Your task to perform on an android device: open the mobile data screen to see how much data has been used Image 0: 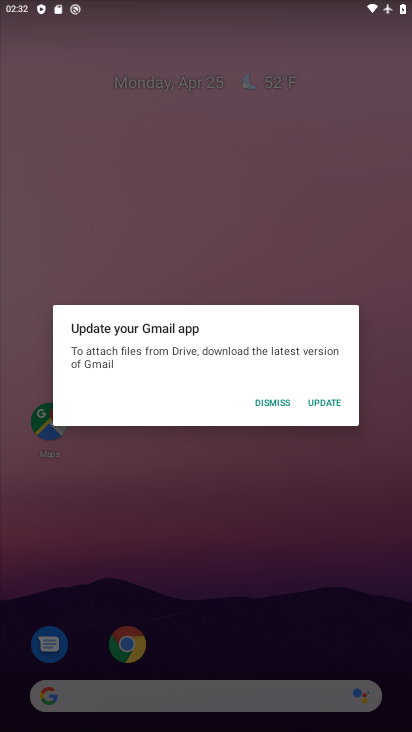
Step 0: press home button
Your task to perform on an android device: open the mobile data screen to see how much data has been used Image 1: 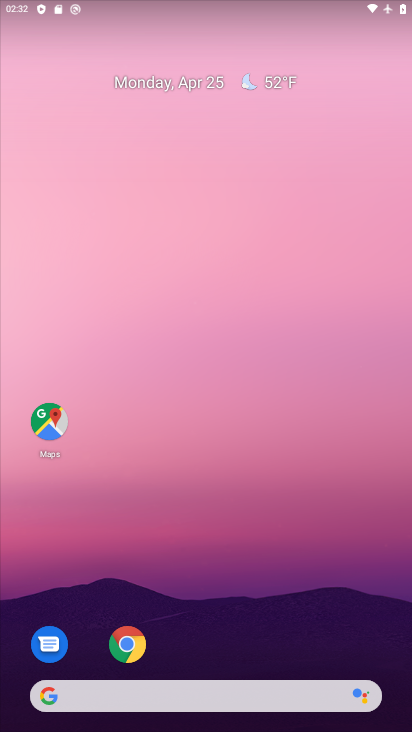
Step 1: drag from (310, 652) to (304, 215)
Your task to perform on an android device: open the mobile data screen to see how much data has been used Image 2: 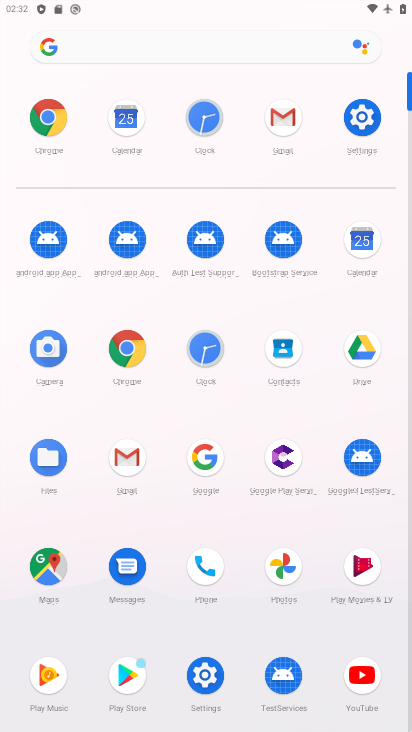
Step 2: click (201, 670)
Your task to perform on an android device: open the mobile data screen to see how much data has been used Image 3: 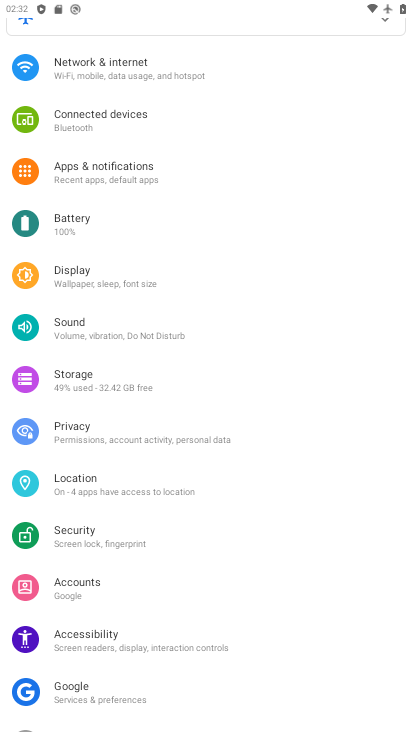
Step 3: click (138, 80)
Your task to perform on an android device: open the mobile data screen to see how much data has been used Image 4: 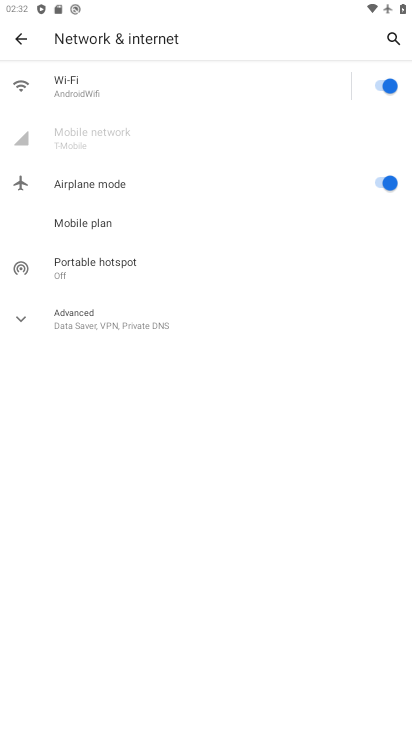
Step 4: click (89, 310)
Your task to perform on an android device: open the mobile data screen to see how much data has been used Image 5: 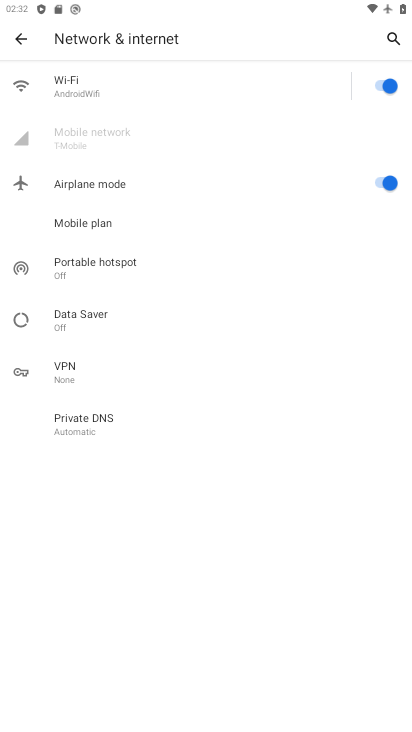
Step 5: click (394, 178)
Your task to perform on an android device: open the mobile data screen to see how much data has been used Image 6: 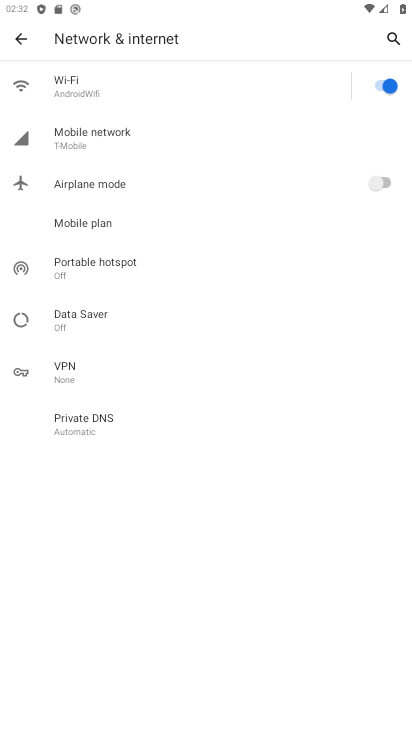
Step 6: click (193, 118)
Your task to perform on an android device: open the mobile data screen to see how much data has been used Image 7: 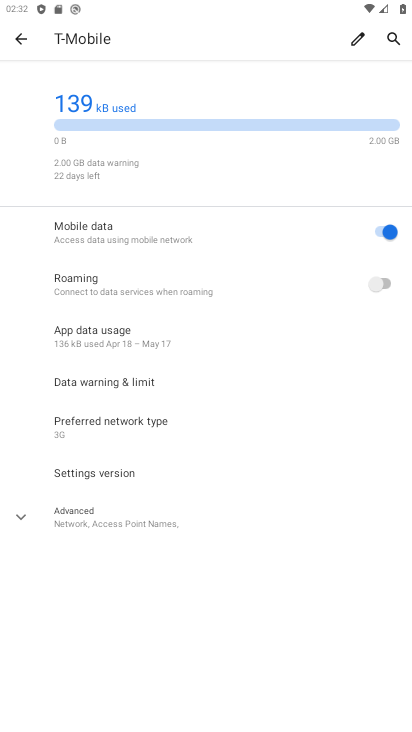
Step 7: task complete